Your task to perform on an android device: allow cookies in the chrome app Image 0: 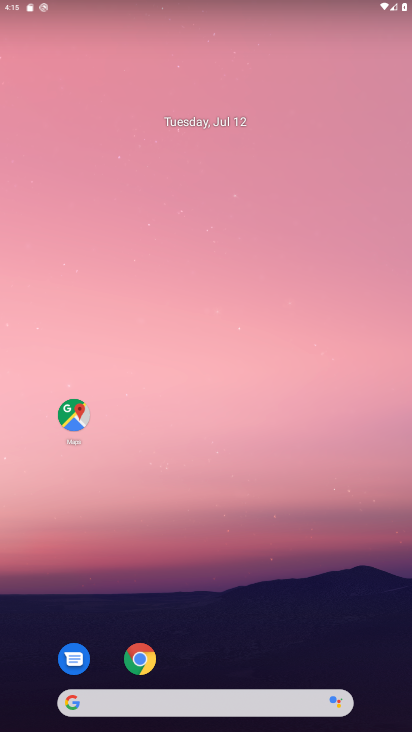
Step 0: press home button
Your task to perform on an android device: allow cookies in the chrome app Image 1: 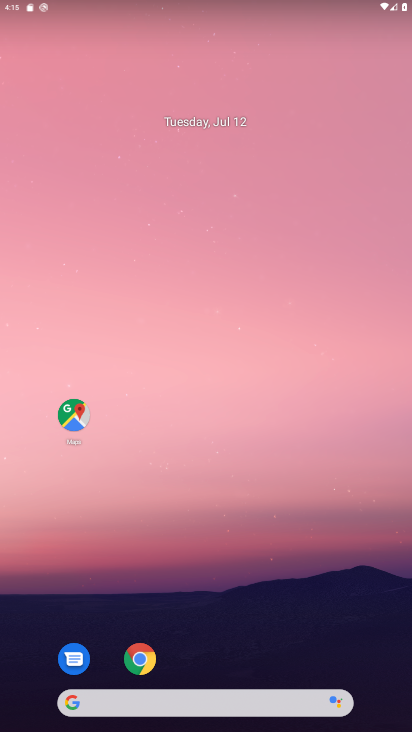
Step 1: click (142, 658)
Your task to perform on an android device: allow cookies in the chrome app Image 2: 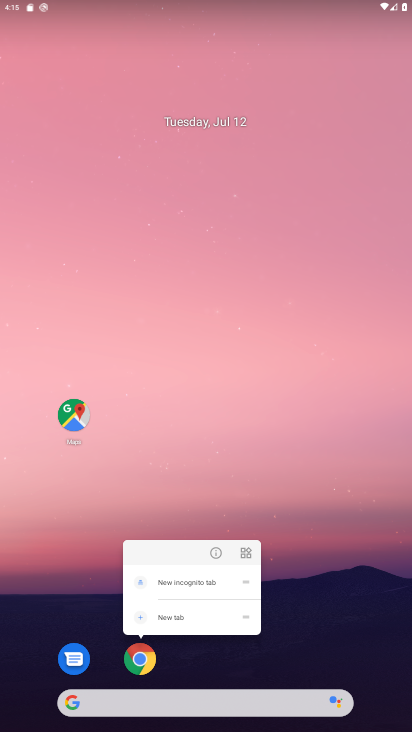
Step 2: click (140, 665)
Your task to perform on an android device: allow cookies in the chrome app Image 3: 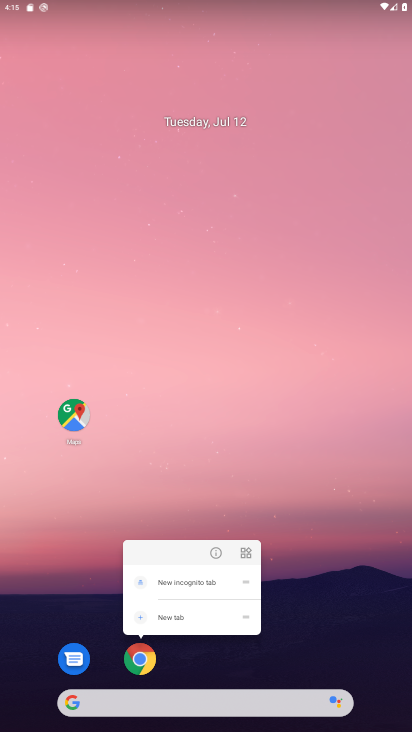
Step 3: click (140, 665)
Your task to perform on an android device: allow cookies in the chrome app Image 4: 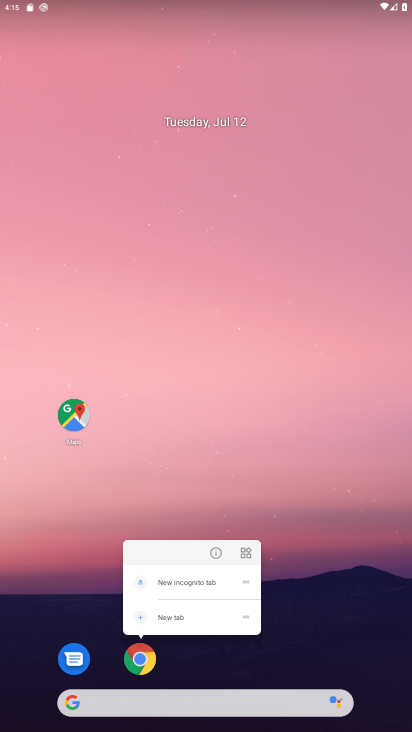
Step 4: click (140, 655)
Your task to perform on an android device: allow cookies in the chrome app Image 5: 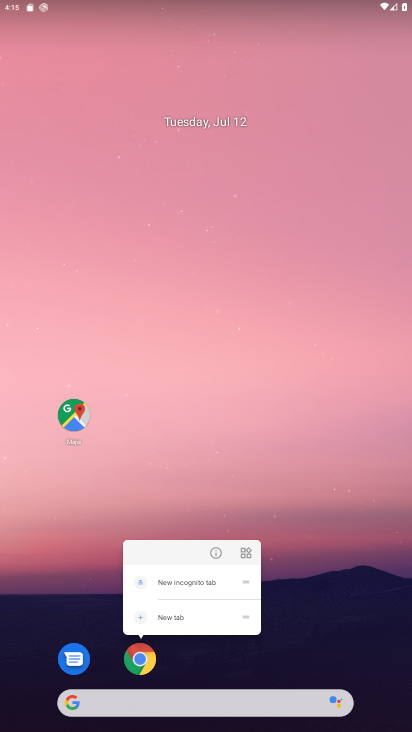
Step 5: task complete